Your task to perform on an android device: allow cookies in the chrome app Image 0: 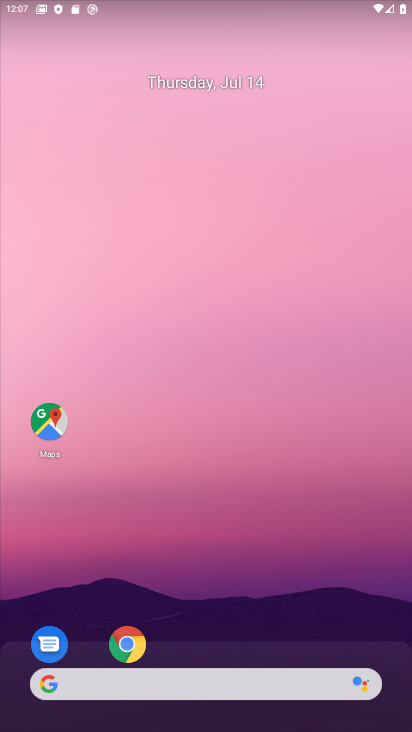
Step 0: drag from (326, 714) to (361, 21)
Your task to perform on an android device: allow cookies in the chrome app Image 1: 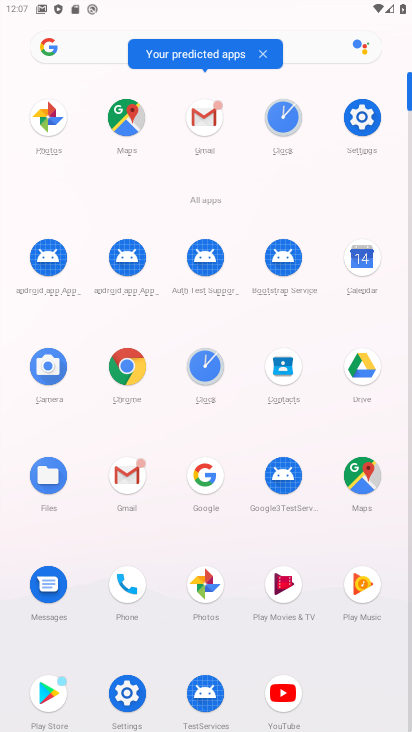
Step 1: click (113, 368)
Your task to perform on an android device: allow cookies in the chrome app Image 2: 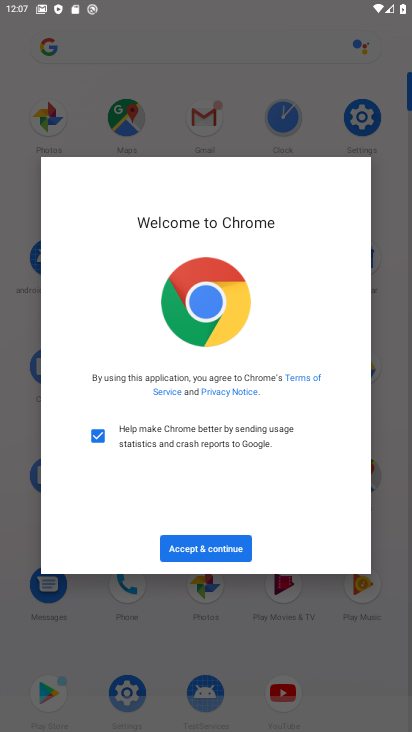
Step 2: click (220, 532)
Your task to perform on an android device: allow cookies in the chrome app Image 3: 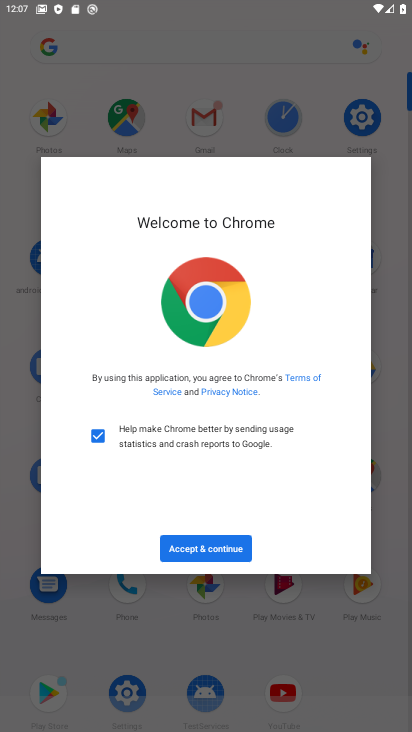
Step 3: click (216, 560)
Your task to perform on an android device: allow cookies in the chrome app Image 4: 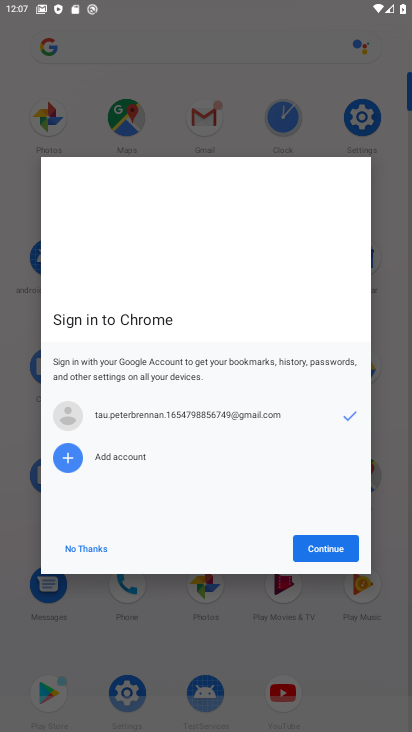
Step 4: click (98, 542)
Your task to perform on an android device: allow cookies in the chrome app Image 5: 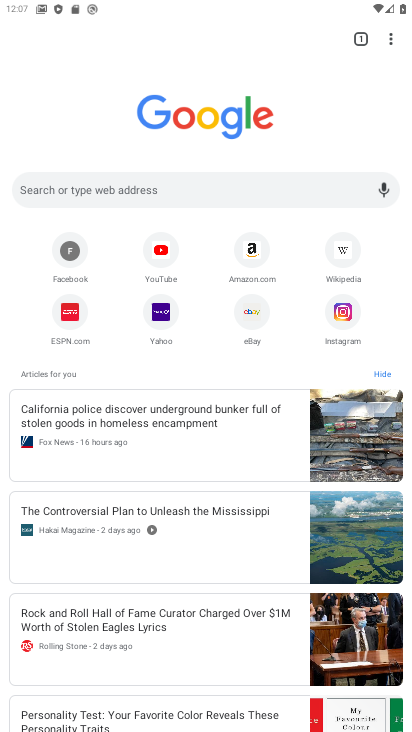
Step 5: click (392, 28)
Your task to perform on an android device: allow cookies in the chrome app Image 6: 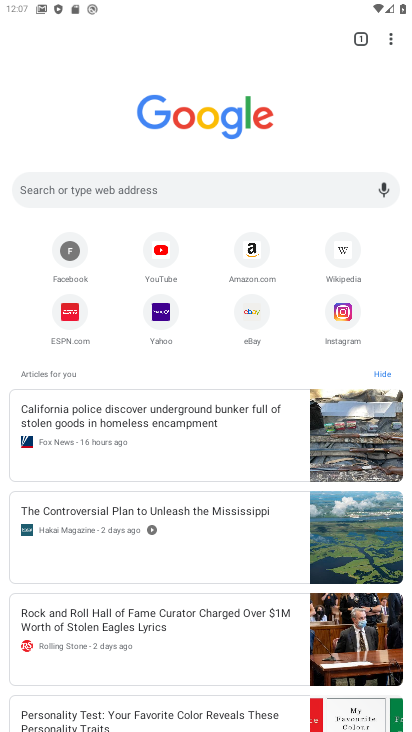
Step 6: click (389, 44)
Your task to perform on an android device: allow cookies in the chrome app Image 7: 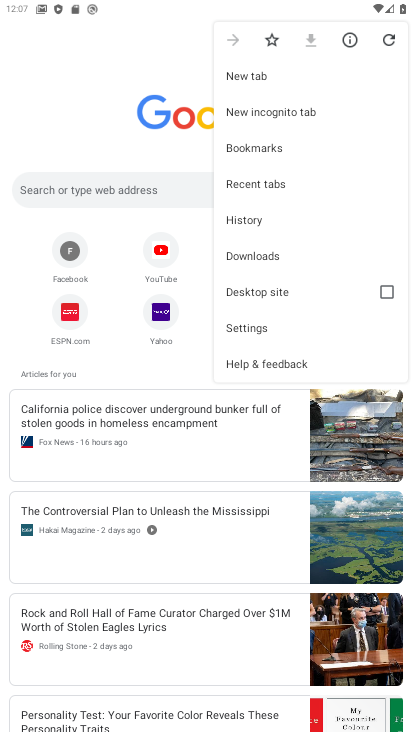
Step 7: click (308, 340)
Your task to perform on an android device: allow cookies in the chrome app Image 8: 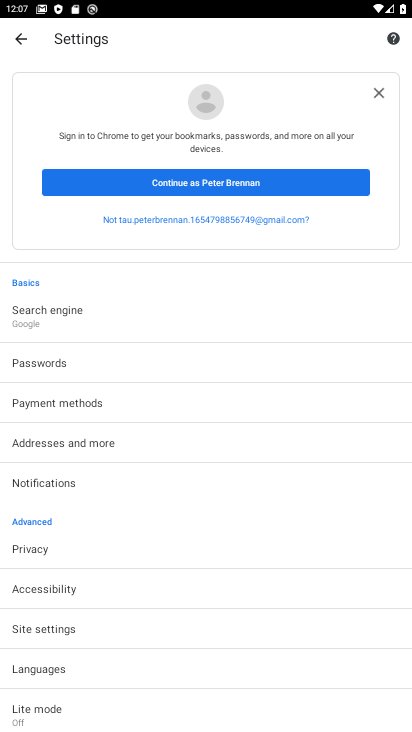
Step 8: click (79, 629)
Your task to perform on an android device: allow cookies in the chrome app Image 9: 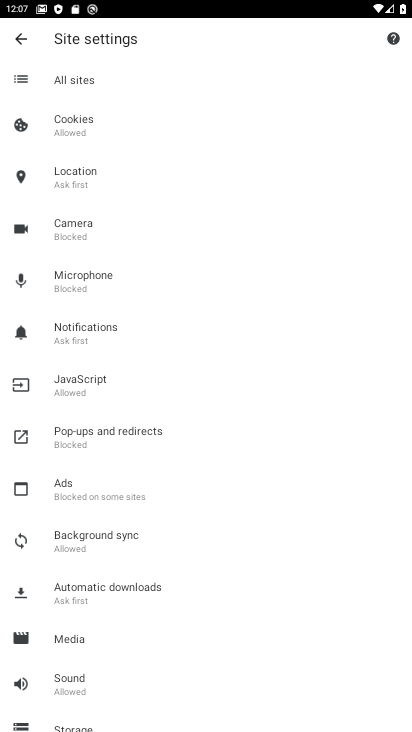
Step 9: click (78, 125)
Your task to perform on an android device: allow cookies in the chrome app Image 10: 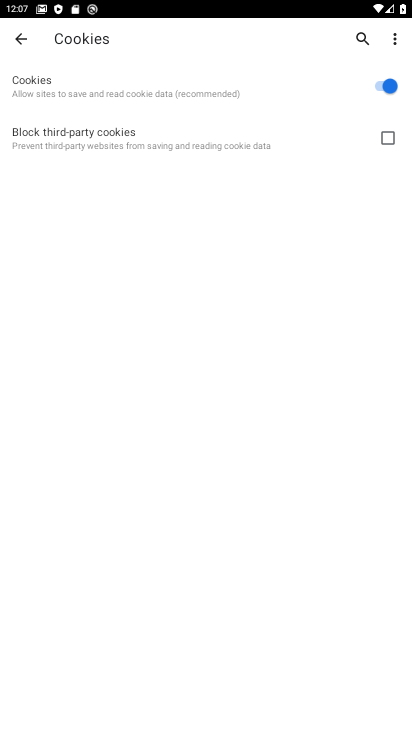
Step 10: task complete